Your task to perform on an android device: Open Android settings Image 0: 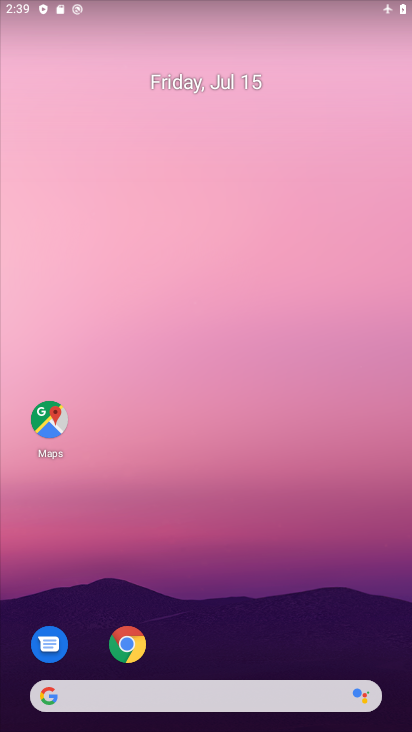
Step 0: drag from (315, 624) to (295, 12)
Your task to perform on an android device: Open Android settings Image 1: 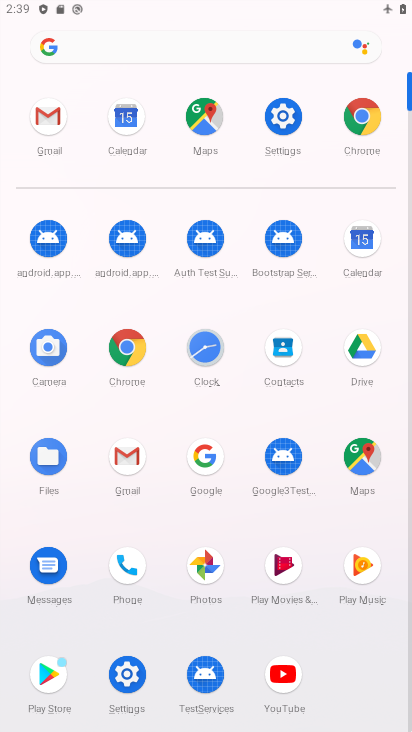
Step 1: click (273, 110)
Your task to perform on an android device: Open Android settings Image 2: 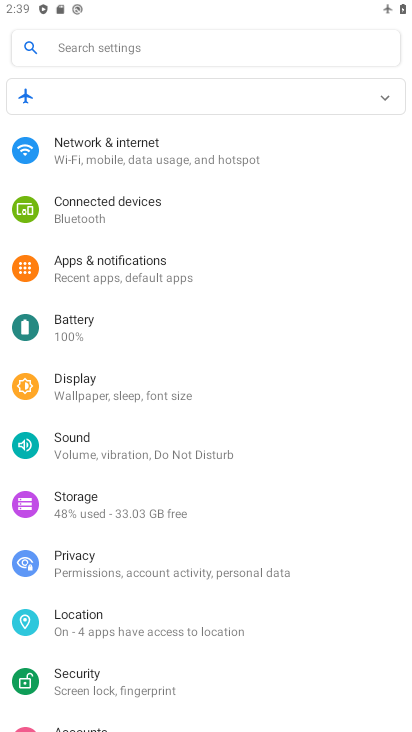
Step 2: drag from (184, 694) to (212, 36)
Your task to perform on an android device: Open Android settings Image 3: 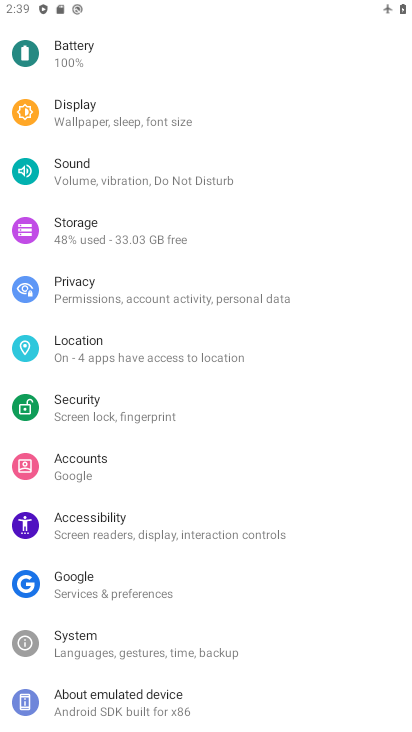
Step 3: click (162, 703)
Your task to perform on an android device: Open Android settings Image 4: 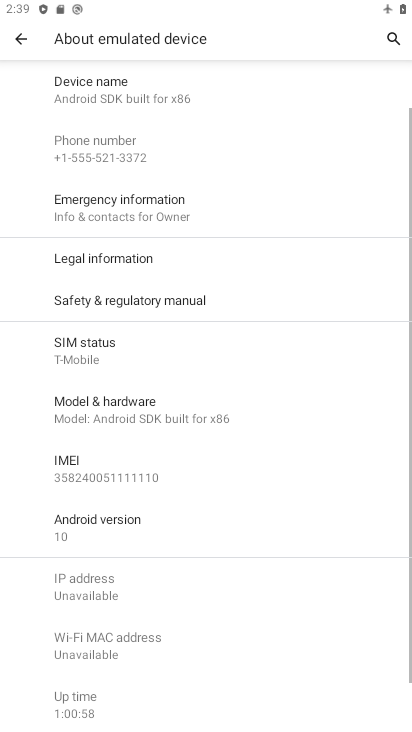
Step 4: click (122, 534)
Your task to perform on an android device: Open Android settings Image 5: 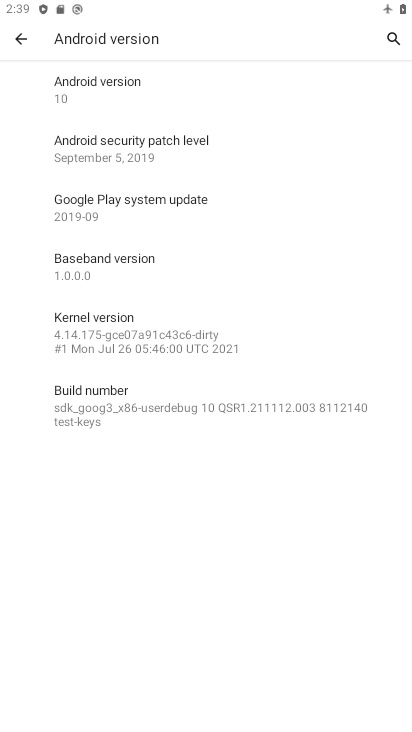
Step 5: task complete